Your task to perform on an android device: turn on showing notifications on the lock screen Image 0: 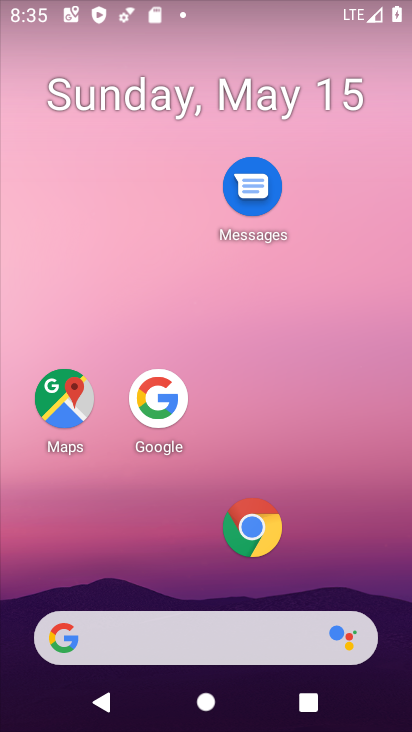
Step 0: press home button
Your task to perform on an android device: turn on showing notifications on the lock screen Image 1: 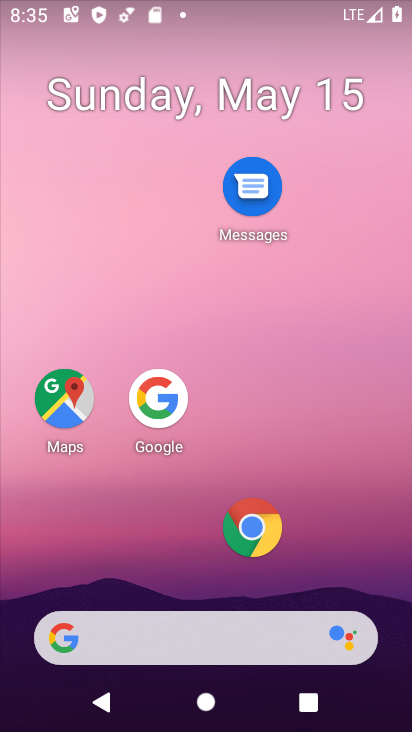
Step 1: drag from (158, 647) to (293, 149)
Your task to perform on an android device: turn on showing notifications on the lock screen Image 2: 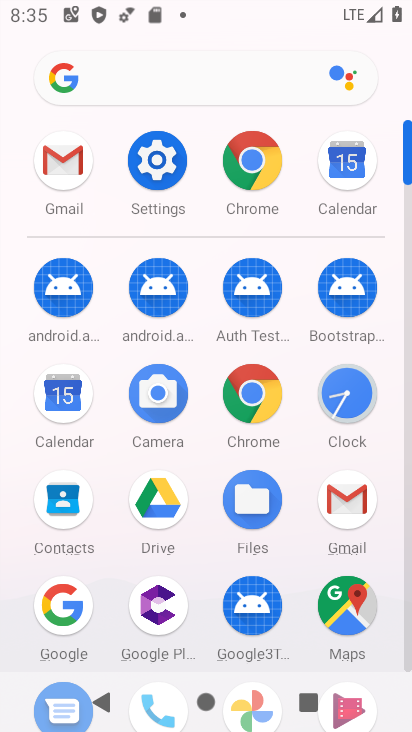
Step 2: click (136, 161)
Your task to perform on an android device: turn on showing notifications on the lock screen Image 3: 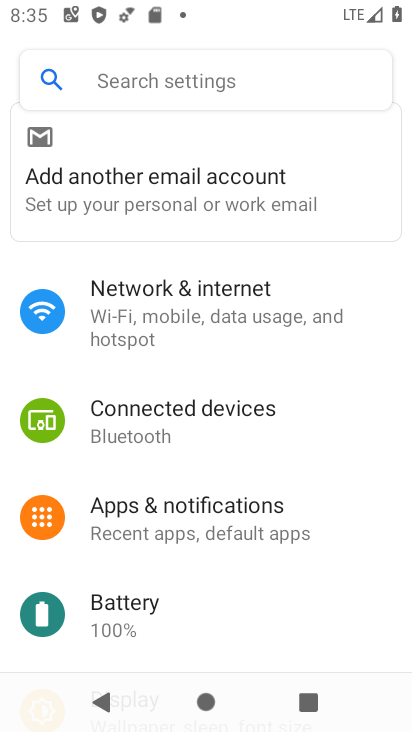
Step 3: drag from (252, 605) to (326, 241)
Your task to perform on an android device: turn on showing notifications on the lock screen Image 4: 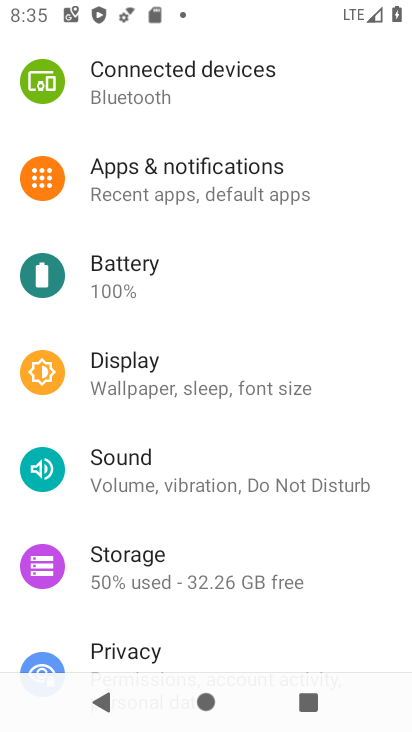
Step 4: click (226, 177)
Your task to perform on an android device: turn on showing notifications on the lock screen Image 5: 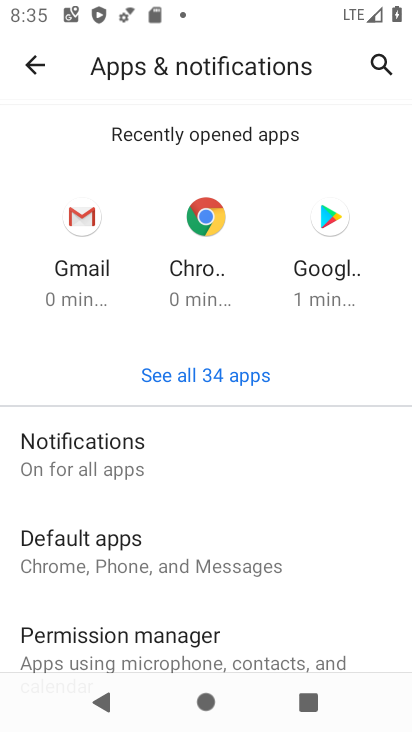
Step 5: click (93, 450)
Your task to perform on an android device: turn on showing notifications on the lock screen Image 6: 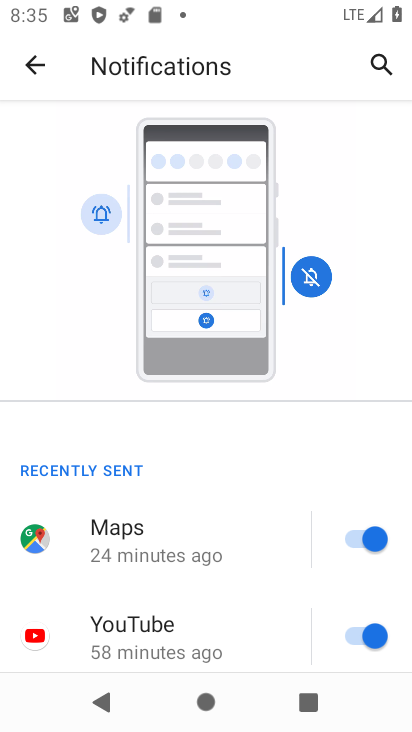
Step 6: drag from (174, 603) to (395, 103)
Your task to perform on an android device: turn on showing notifications on the lock screen Image 7: 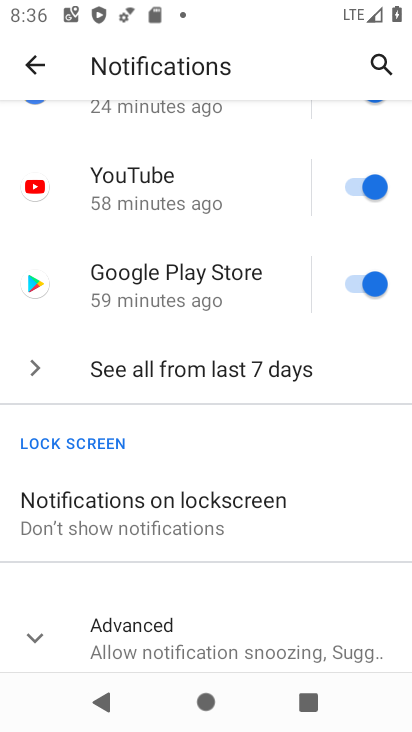
Step 7: click (212, 507)
Your task to perform on an android device: turn on showing notifications on the lock screen Image 8: 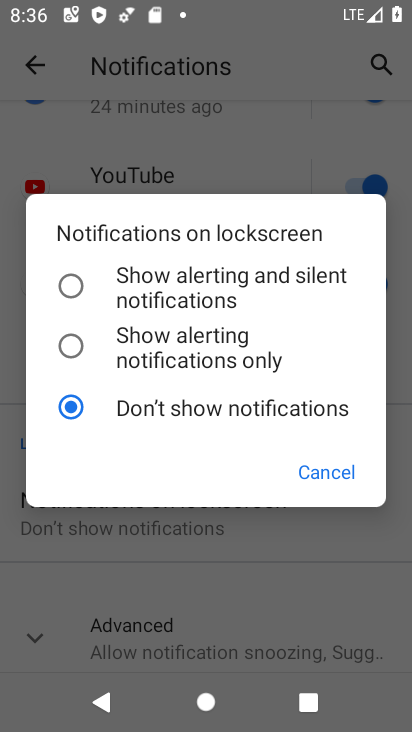
Step 8: click (66, 289)
Your task to perform on an android device: turn on showing notifications on the lock screen Image 9: 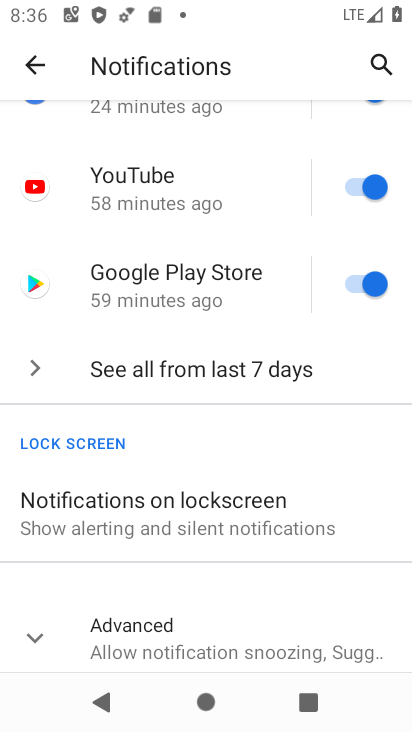
Step 9: task complete